Your task to perform on an android device: Open the Play Movies app and select the watchlist tab. Image 0: 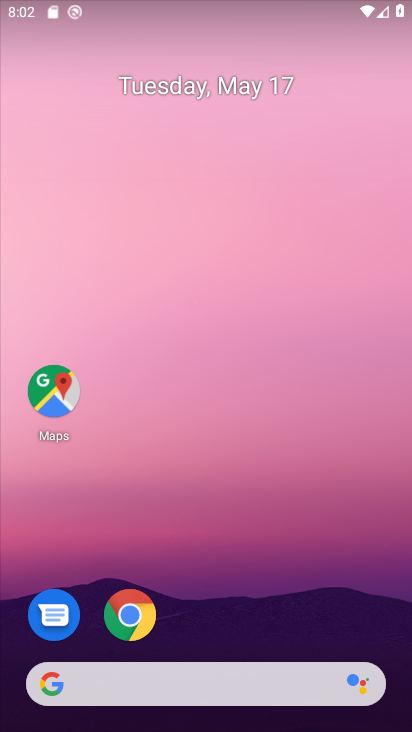
Step 0: drag from (307, 578) to (327, 200)
Your task to perform on an android device: Open the Play Movies app and select the watchlist tab. Image 1: 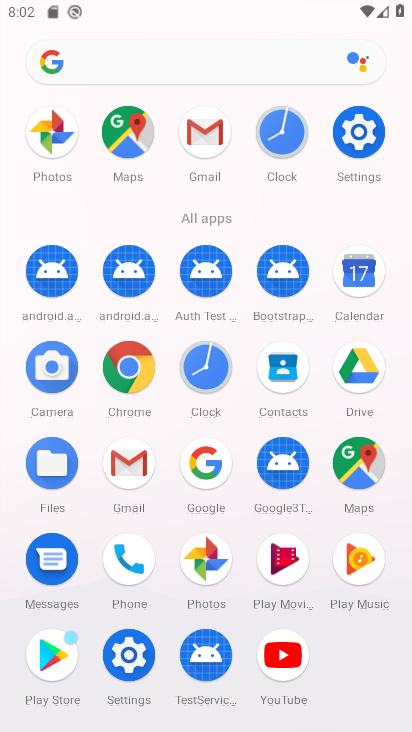
Step 1: click (294, 562)
Your task to perform on an android device: Open the Play Movies app and select the watchlist tab. Image 2: 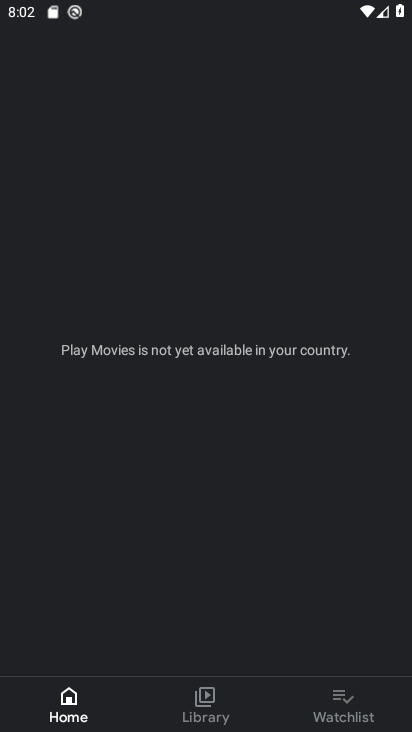
Step 2: click (338, 716)
Your task to perform on an android device: Open the Play Movies app and select the watchlist tab. Image 3: 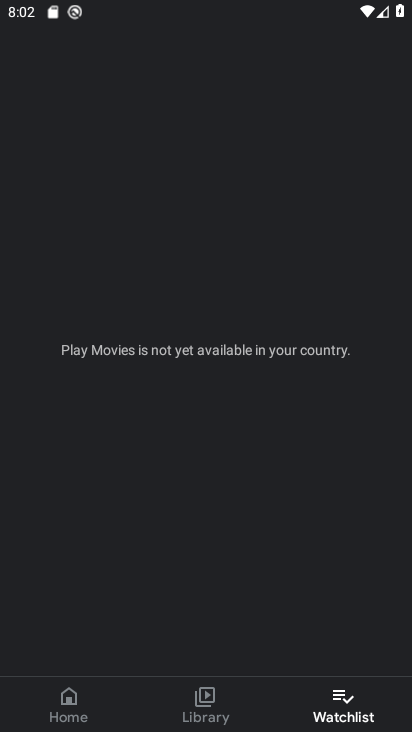
Step 3: task complete